Your task to perform on an android device: search for starred emails in the gmail app Image 0: 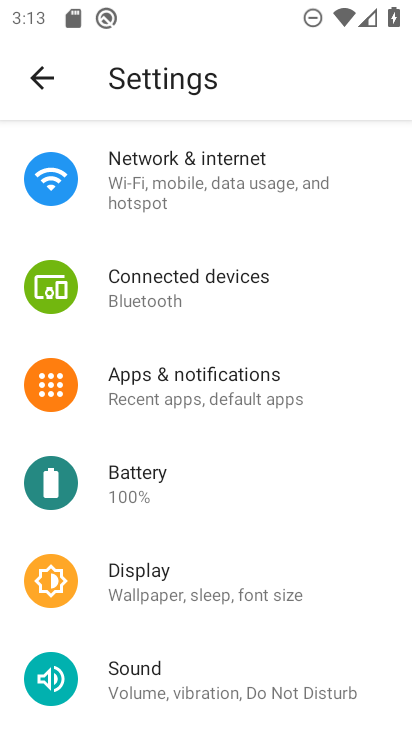
Step 0: press home button
Your task to perform on an android device: search for starred emails in the gmail app Image 1: 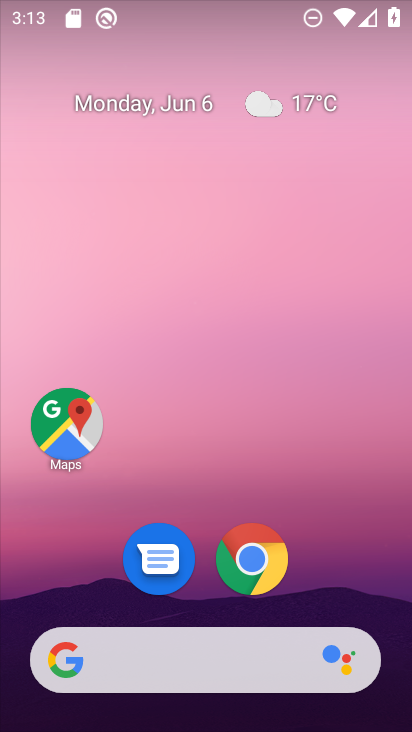
Step 1: drag from (399, 609) to (293, 295)
Your task to perform on an android device: search for starred emails in the gmail app Image 2: 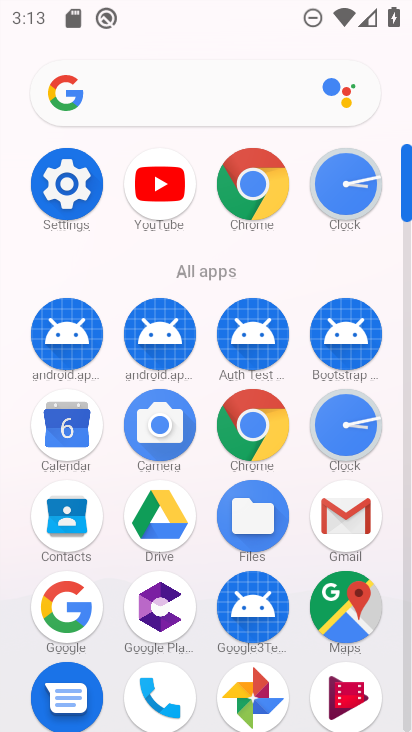
Step 2: click (356, 510)
Your task to perform on an android device: search for starred emails in the gmail app Image 3: 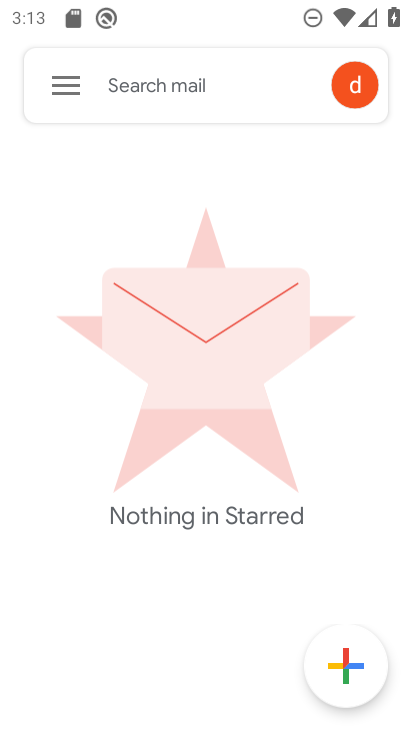
Step 3: click (58, 93)
Your task to perform on an android device: search for starred emails in the gmail app Image 4: 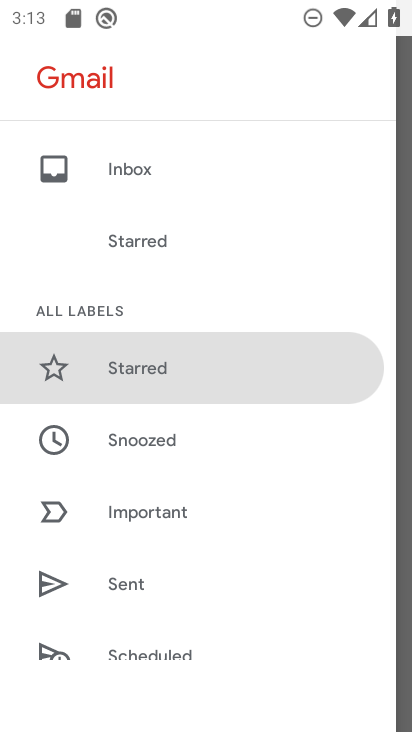
Step 4: click (178, 372)
Your task to perform on an android device: search for starred emails in the gmail app Image 5: 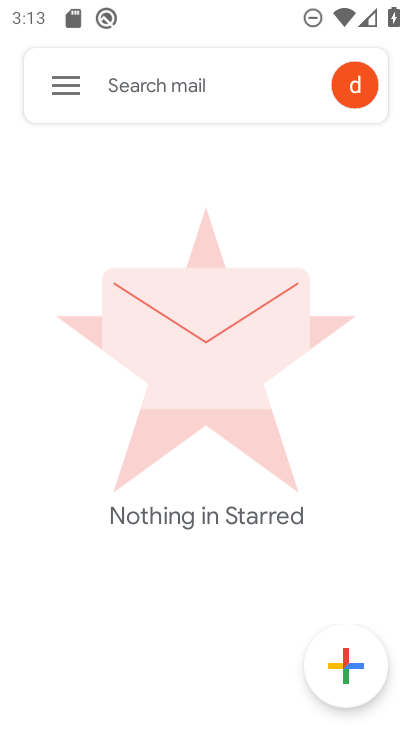
Step 5: task complete